Your task to perform on an android device: Search for pizza restaurants on Maps Image 0: 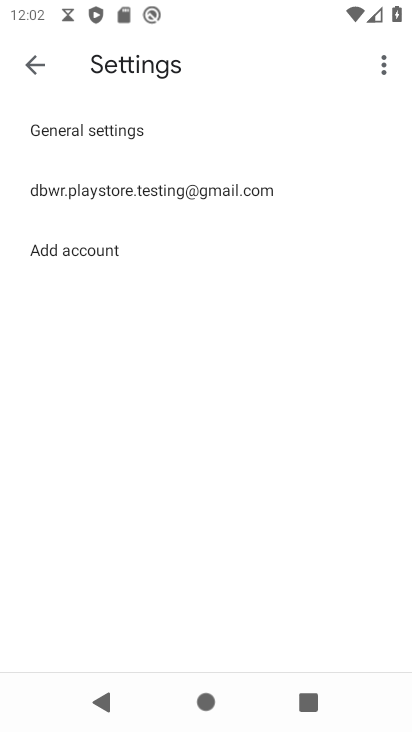
Step 0: press back button
Your task to perform on an android device: Search for pizza restaurants on Maps Image 1: 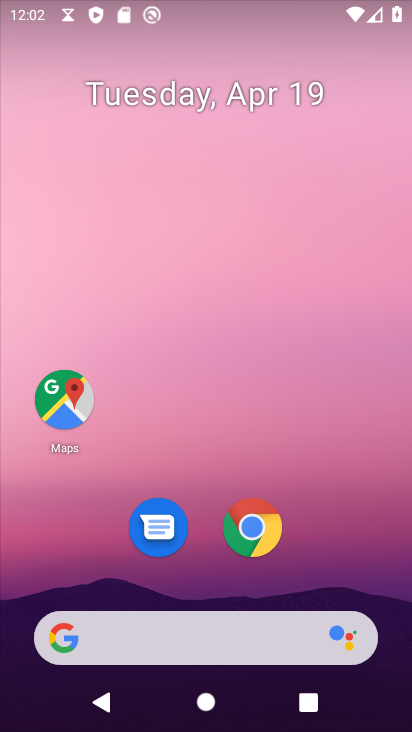
Step 1: click (56, 404)
Your task to perform on an android device: Search for pizza restaurants on Maps Image 2: 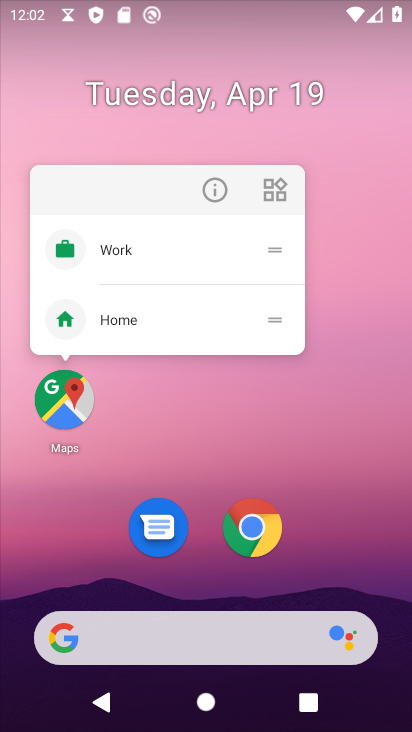
Step 2: click (67, 395)
Your task to perform on an android device: Search for pizza restaurants on Maps Image 3: 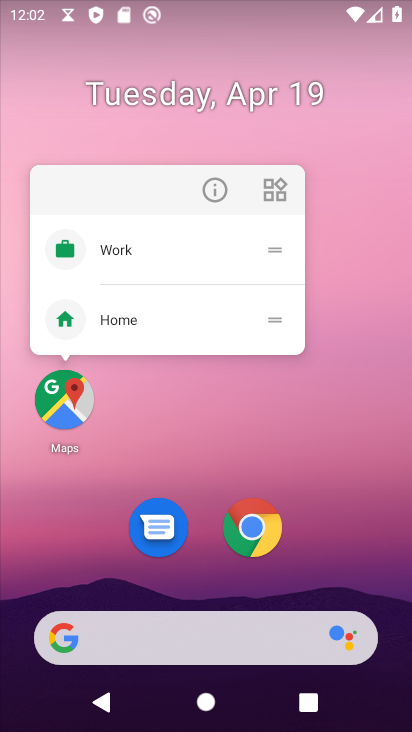
Step 3: click (68, 395)
Your task to perform on an android device: Search for pizza restaurants on Maps Image 4: 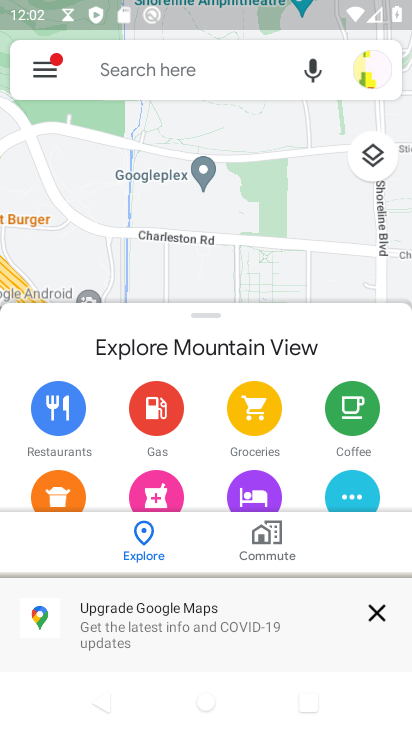
Step 4: click (211, 68)
Your task to perform on an android device: Search for pizza restaurants on Maps Image 5: 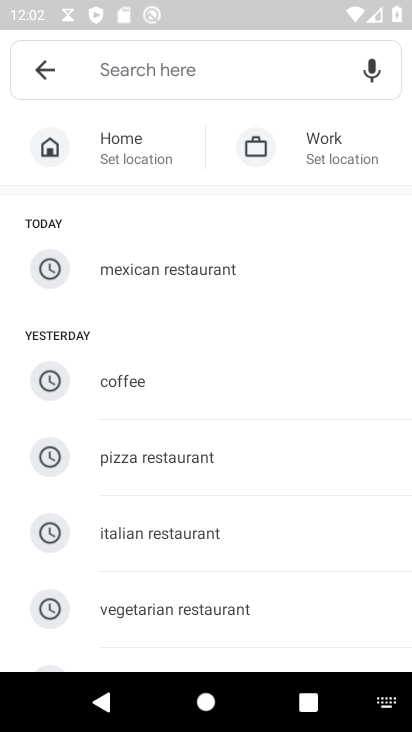
Step 5: type "pizza restaurants"
Your task to perform on an android device: Search for pizza restaurants on Maps Image 6: 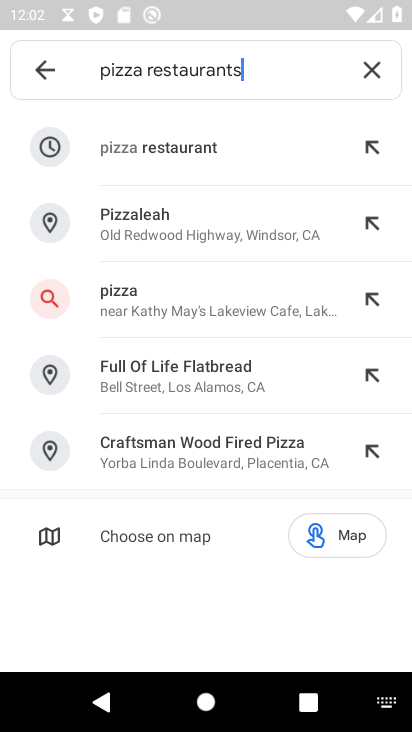
Step 6: click (193, 142)
Your task to perform on an android device: Search for pizza restaurants on Maps Image 7: 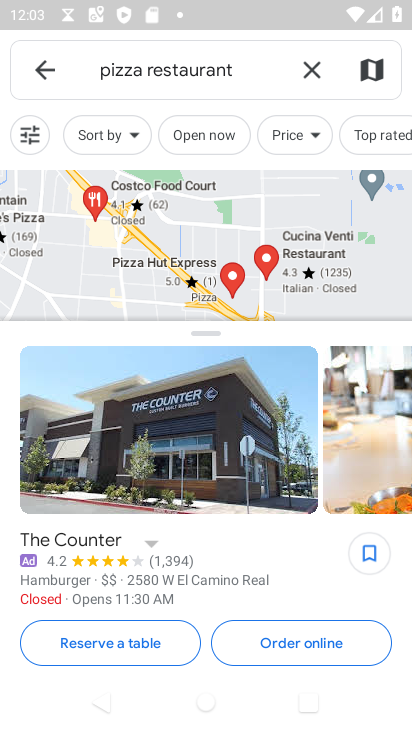
Step 7: task complete